Your task to perform on an android device: turn off notifications in google photos Image 0: 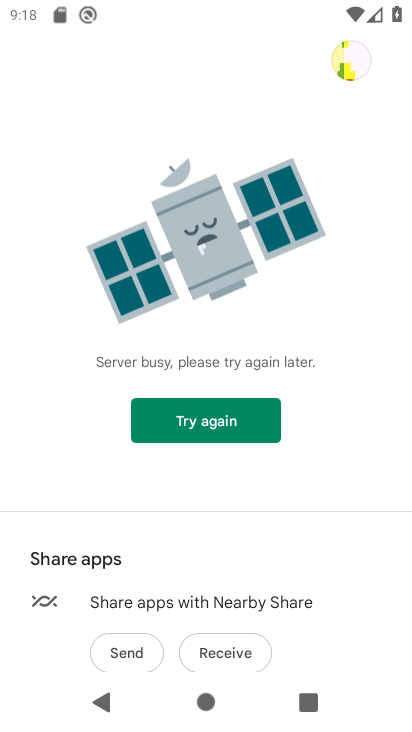
Step 0: press home button
Your task to perform on an android device: turn off notifications in google photos Image 1: 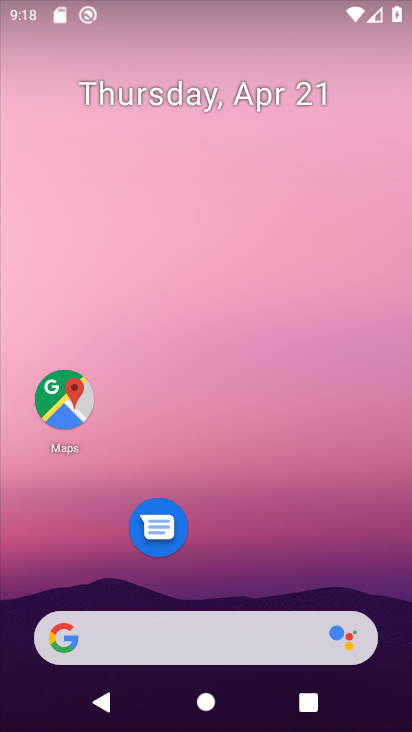
Step 1: drag from (205, 598) to (229, 84)
Your task to perform on an android device: turn off notifications in google photos Image 2: 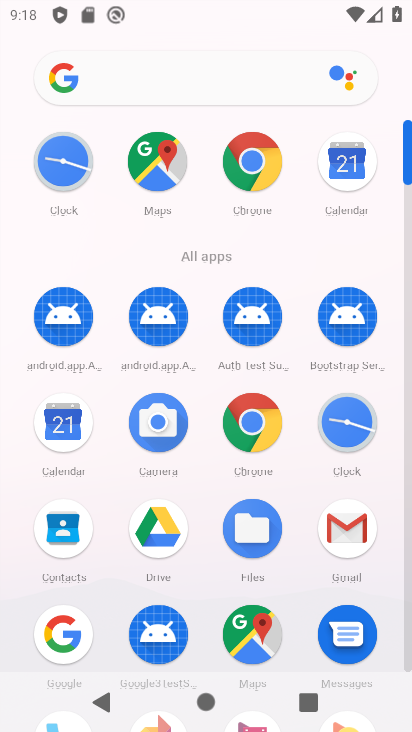
Step 2: drag from (203, 561) to (206, 280)
Your task to perform on an android device: turn off notifications in google photos Image 3: 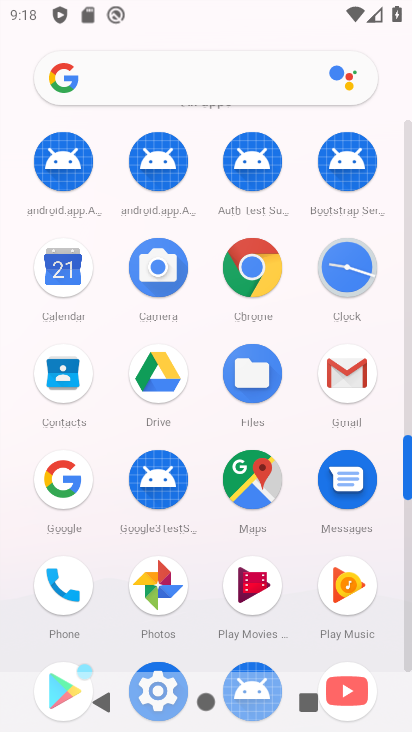
Step 3: click (162, 567)
Your task to perform on an android device: turn off notifications in google photos Image 4: 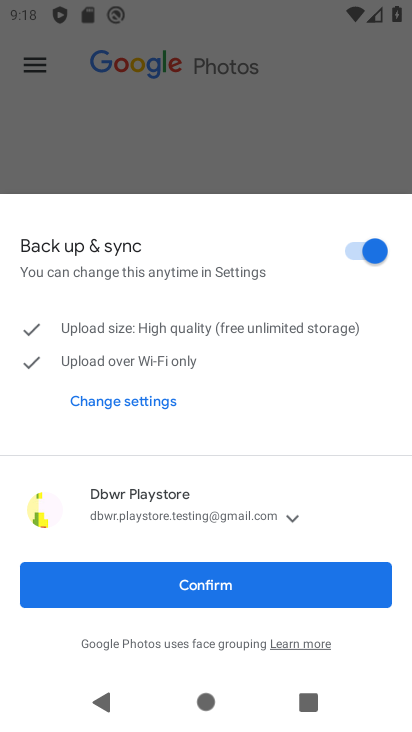
Step 4: click (157, 591)
Your task to perform on an android device: turn off notifications in google photos Image 5: 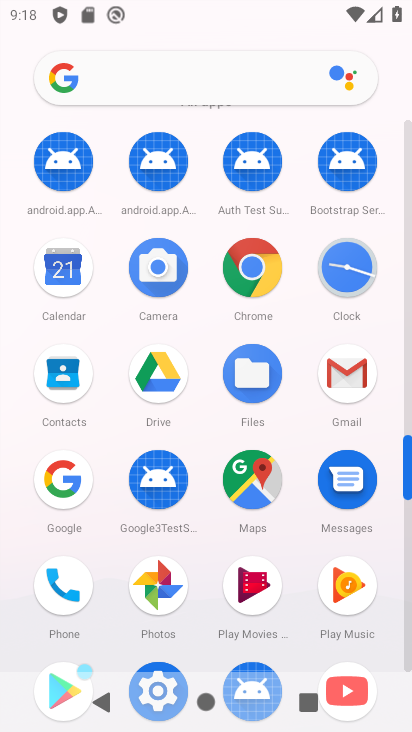
Step 5: click (142, 562)
Your task to perform on an android device: turn off notifications in google photos Image 6: 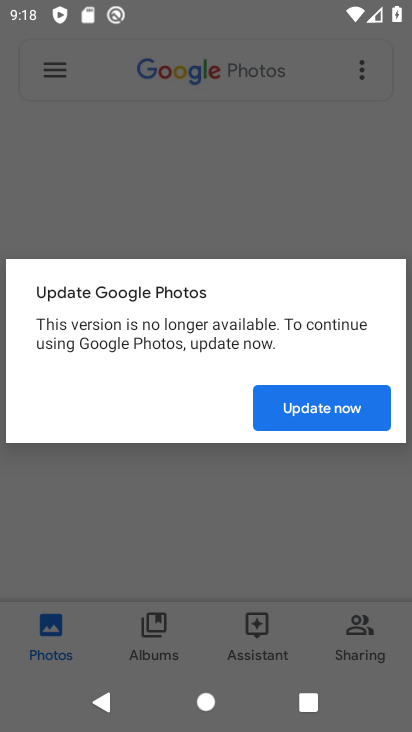
Step 6: click (310, 402)
Your task to perform on an android device: turn off notifications in google photos Image 7: 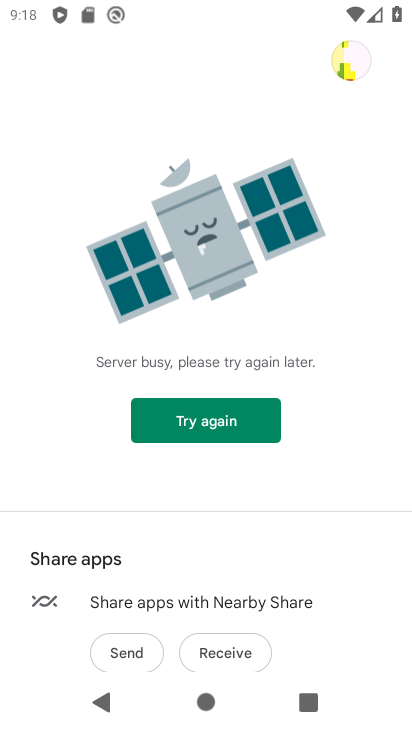
Step 7: press back button
Your task to perform on an android device: turn off notifications in google photos Image 8: 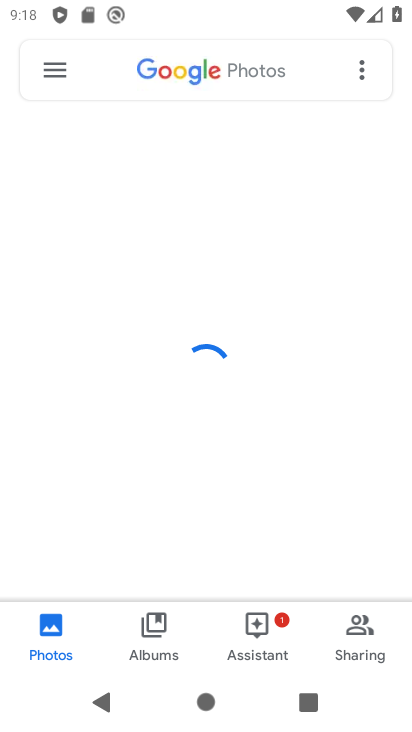
Step 8: click (64, 67)
Your task to perform on an android device: turn off notifications in google photos Image 9: 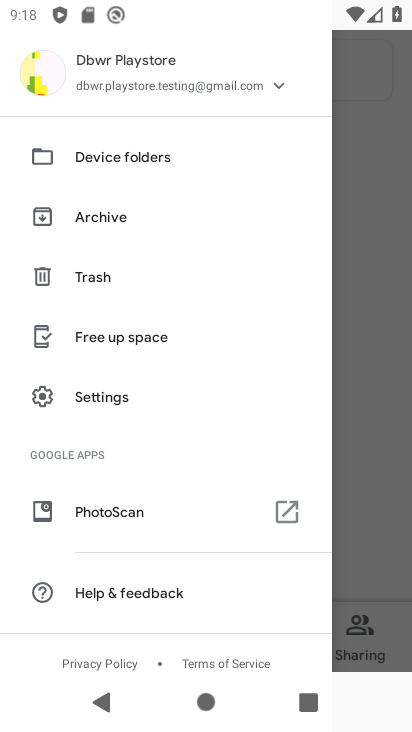
Step 9: click (100, 401)
Your task to perform on an android device: turn off notifications in google photos Image 10: 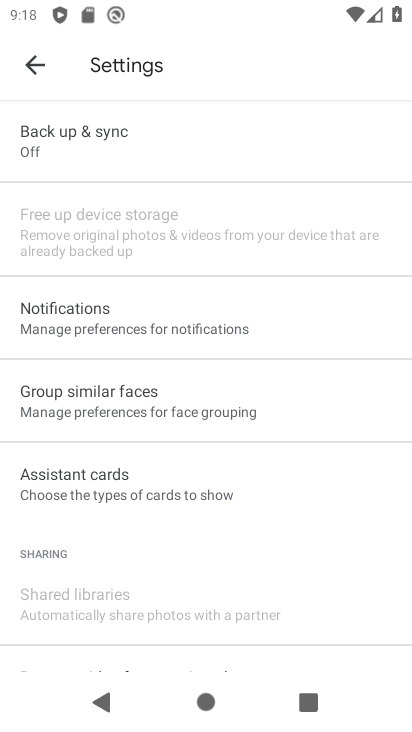
Step 10: click (166, 335)
Your task to perform on an android device: turn off notifications in google photos Image 11: 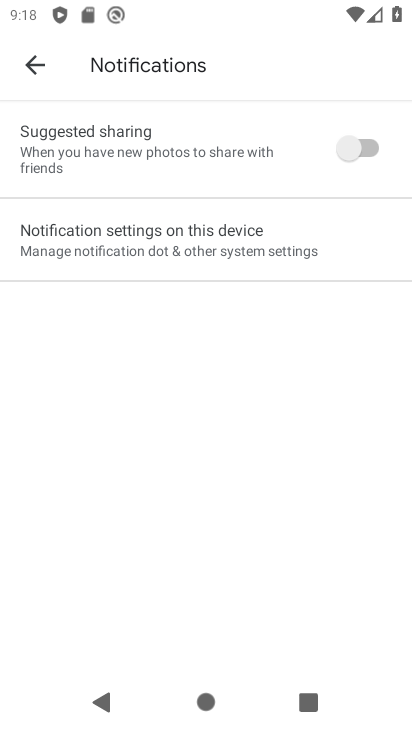
Step 11: click (167, 257)
Your task to perform on an android device: turn off notifications in google photos Image 12: 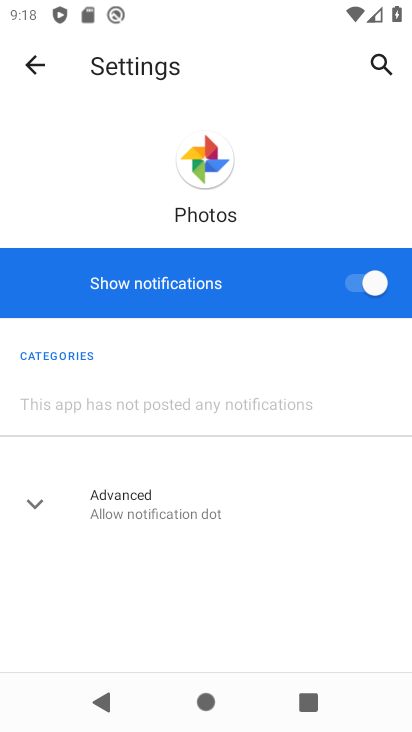
Step 12: click (355, 287)
Your task to perform on an android device: turn off notifications in google photos Image 13: 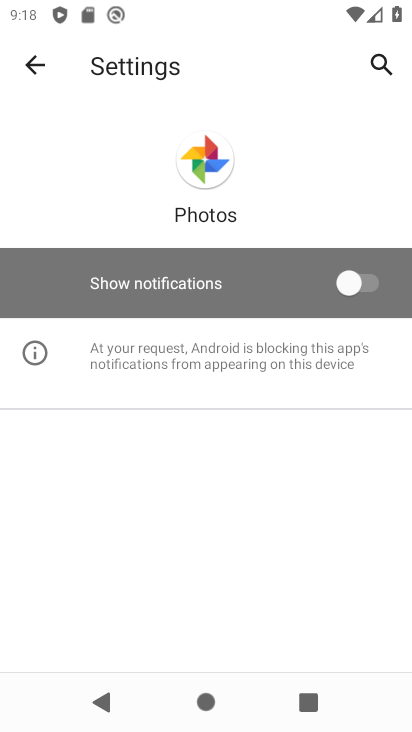
Step 13: task complete